Your task to perform on an android device: Add "alienware area 51" to the cart on newegg Image 0: 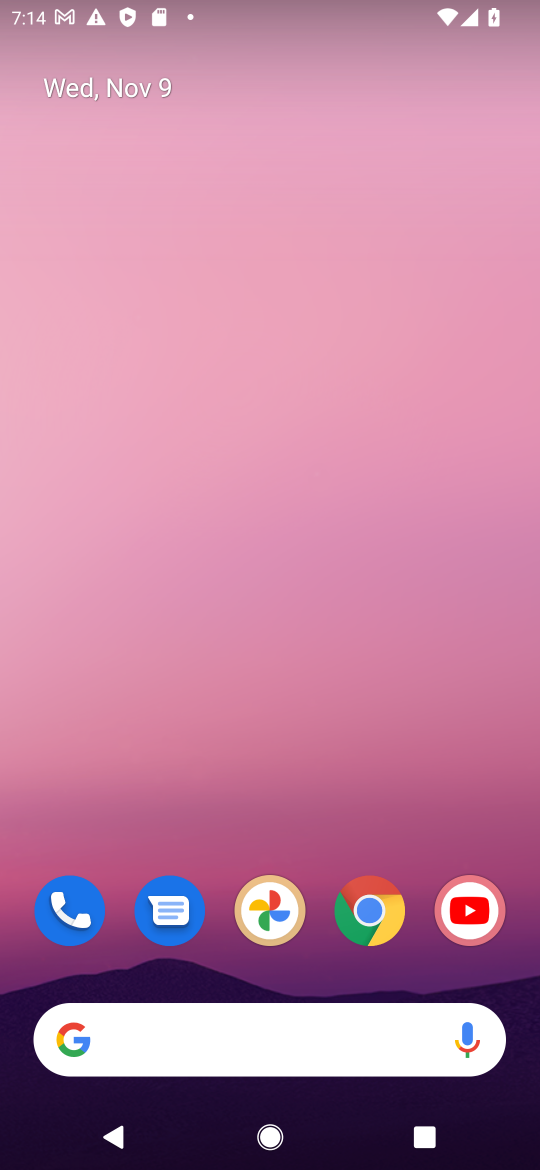
Step 0: click (384, 908)
Your task to perform on an android device: Add "alienware area 51" to the cart on newegg Image 1: 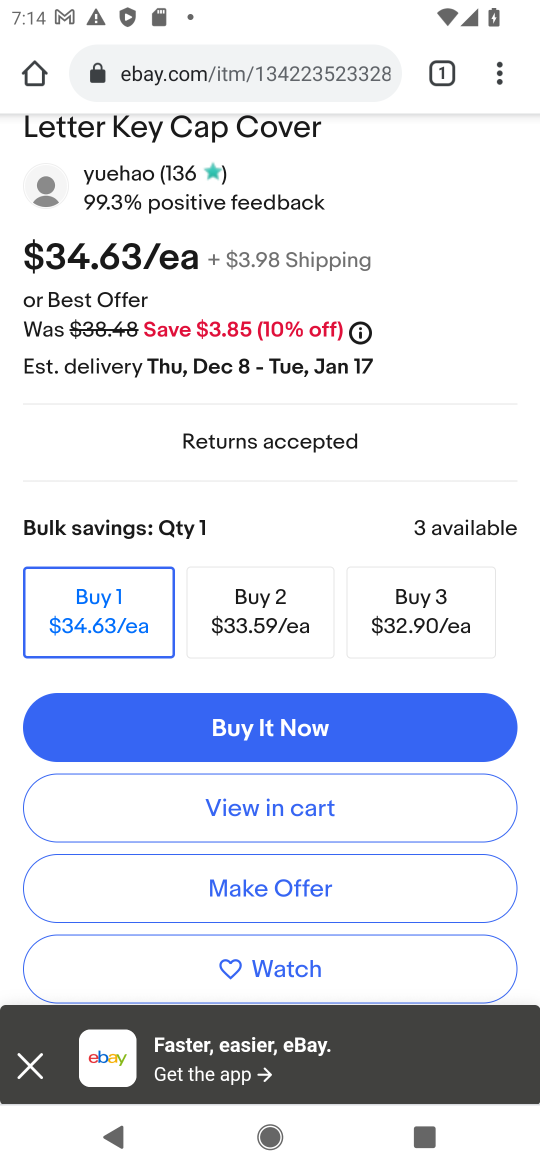
Step 1: click (246, 69)
Your task to perform on an android device: Add "alienware area 51" to the cart on newegg Image 2: 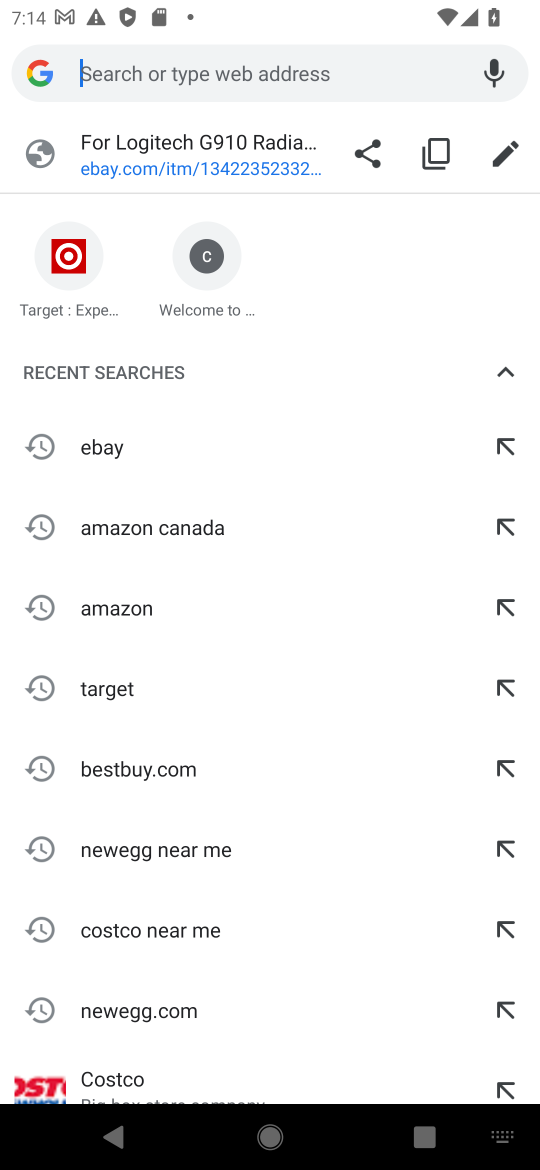
Step 2: click (143, 1014)
Your task to perform on an android device: Add "alienware area 51" to the cart on newegg Image 3: 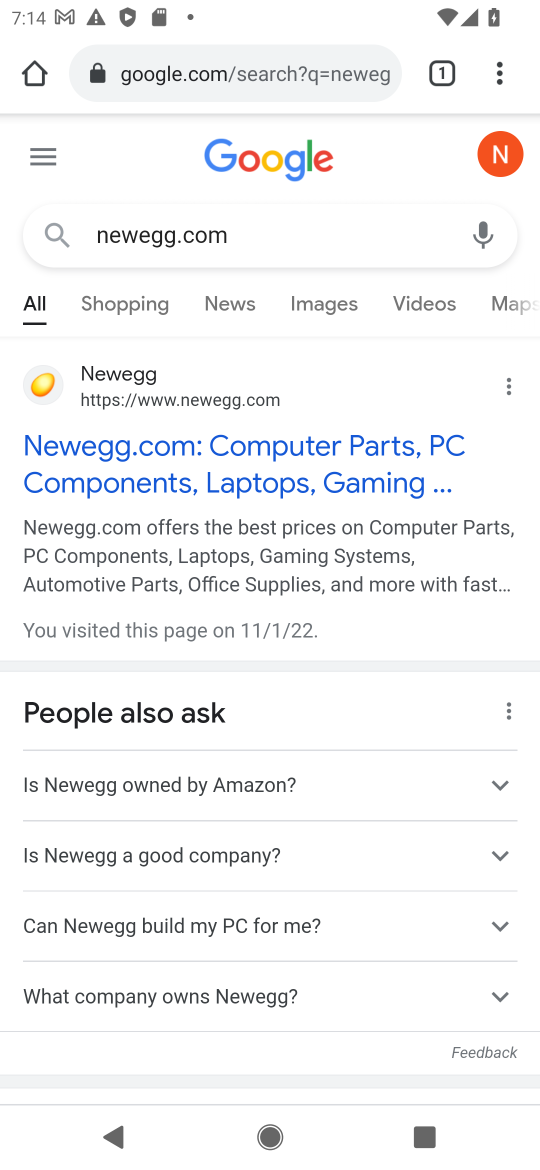
Step 3: click (125, 446)
Your task to perform on an android device: Add "alienware area 51" to the cart on newegg Image 4: 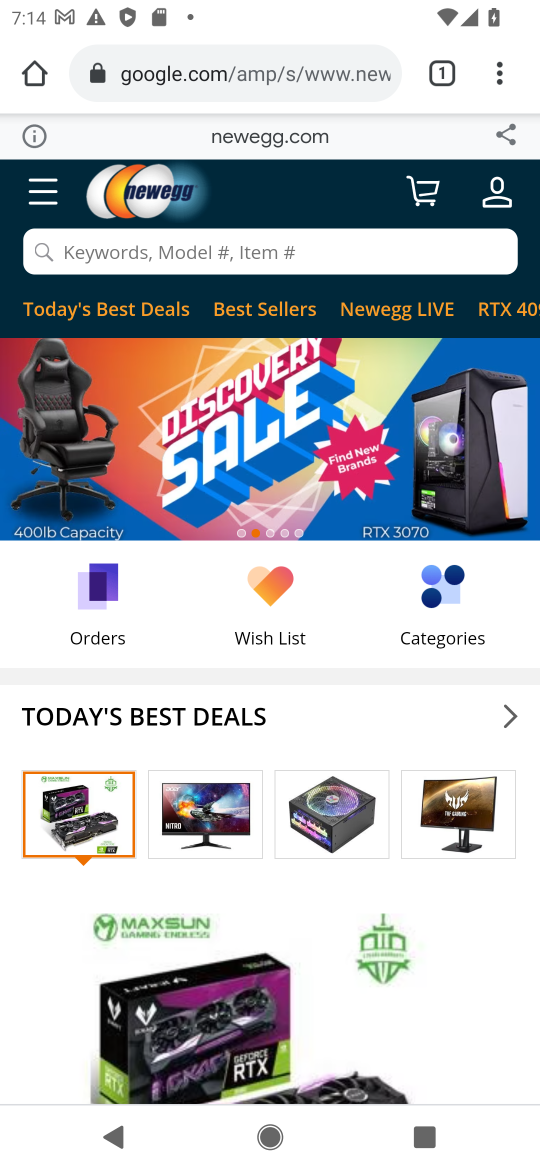
Step 4: click (242, 254)
Your task to perform on an android device: Add "alienware area 51" to the cart on newegg Image 5: 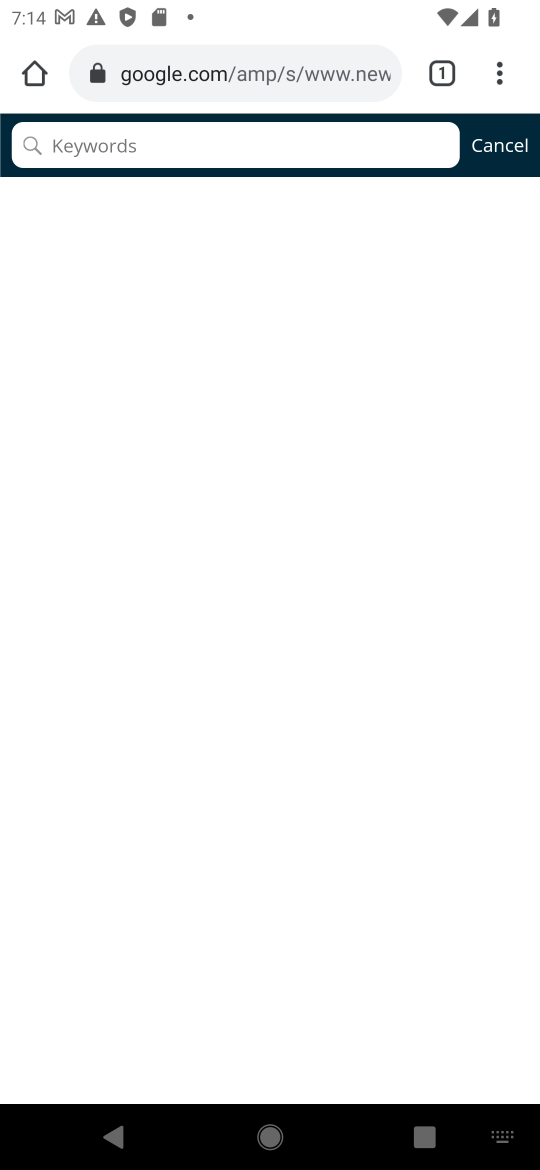
Step 5: type "alienware area 51"
Your task to perform on an android device: Add "alienware area 51" to the cart on newegg Image 6: 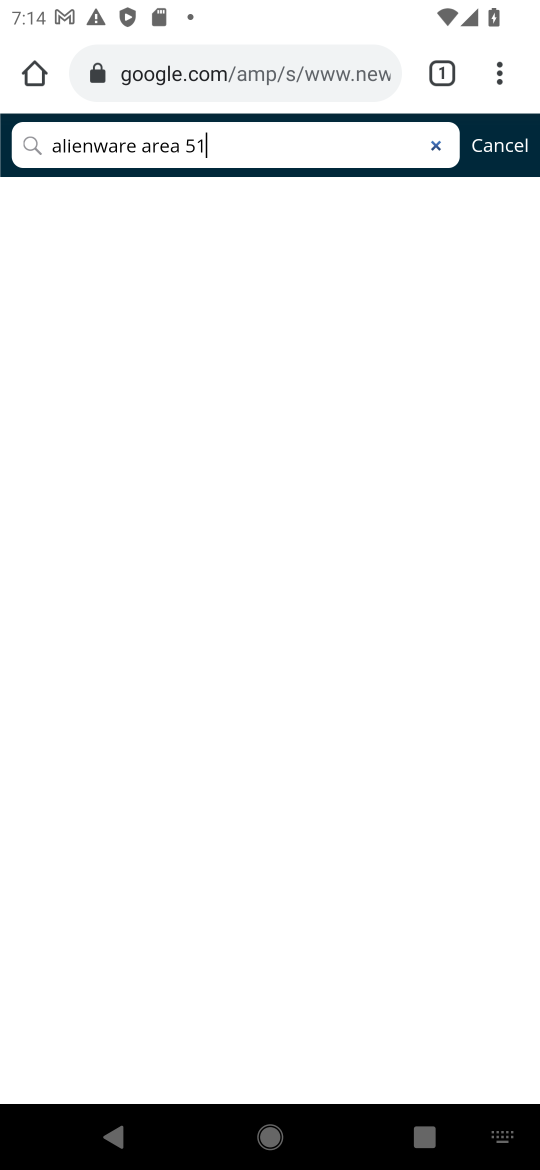
Step 6: click (28, 148)
Your task to perform on an android device: Add "alienware area 51" to the cart on newegg Image 7: 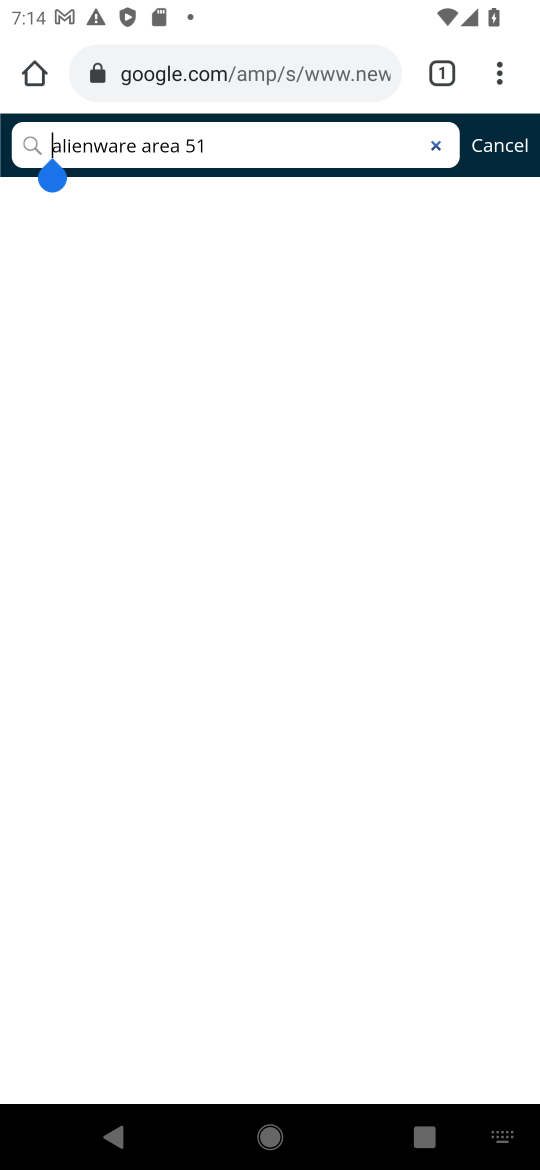
Step 7: click (257, 151)
Your task to perform on an android device: Add "alienware area 51" to the cart on newegg Image 8: 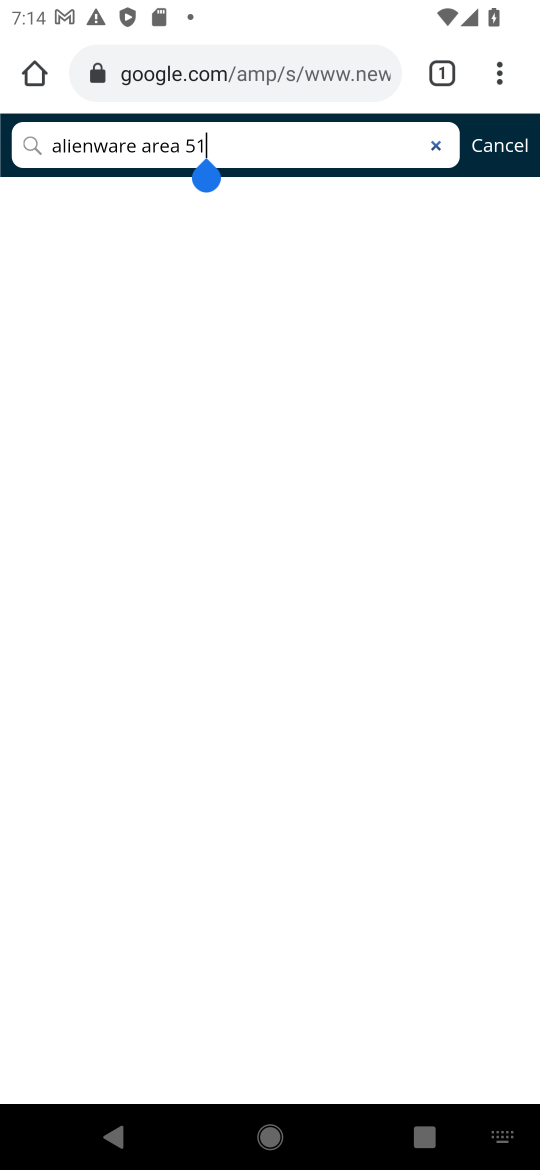
Step 8: task complete